Your task to perform on an android device: allow notifications from all sites in the chrome app Image 0: 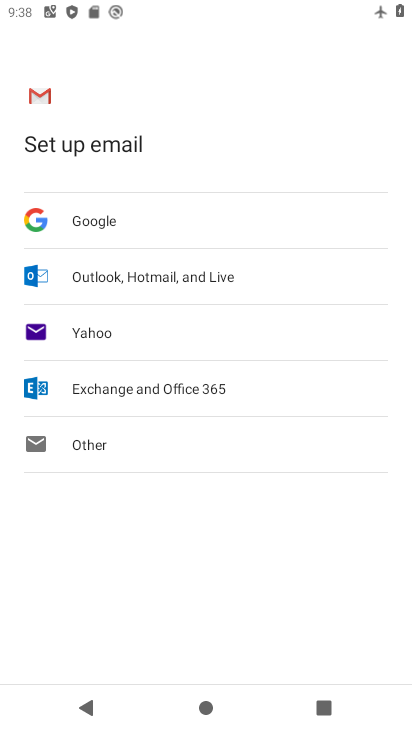
Step 0: press home button
Your task to perform on an android device: allow notifications from all sites in the chrome app Image 1: 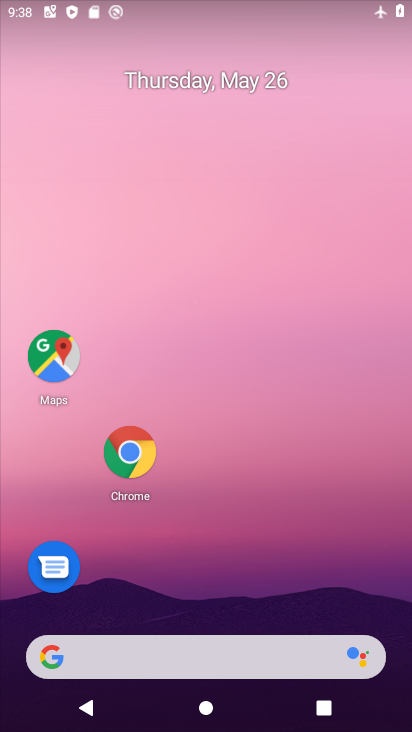
Step 1: click (144, 464)
Your task to perform on an android device: allow notifications from all sites in the chrome app Image 2: 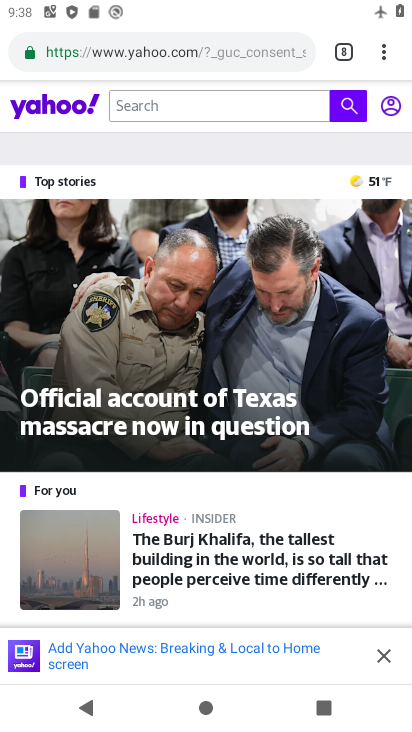
Step 2: drag from (381, 48) to (256, 563)
Your task to perform on an android device: allow notifications from all sites in the chrome app Image 3: 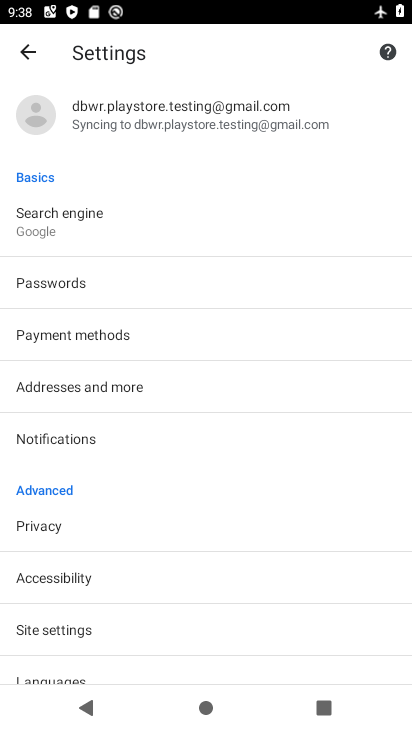
Step 3: click (81, 625)
Your task to perform on an android device: allow notifications from all sites in the chrome app Image 4: 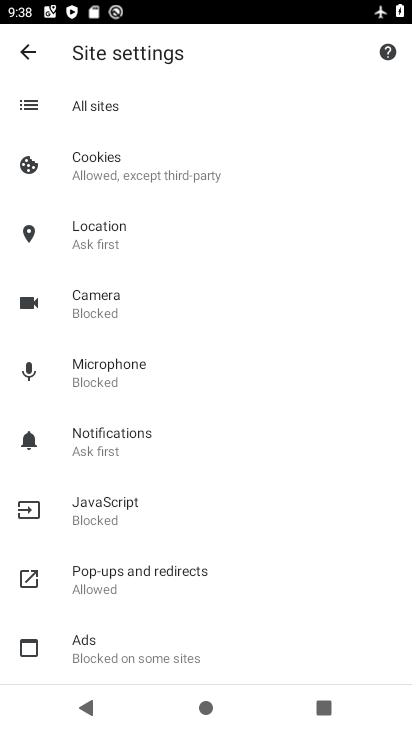
Step 4: click (118, 437)
Your task to perform on an android device: allow notifications from all sites in the chrome app Image 5: 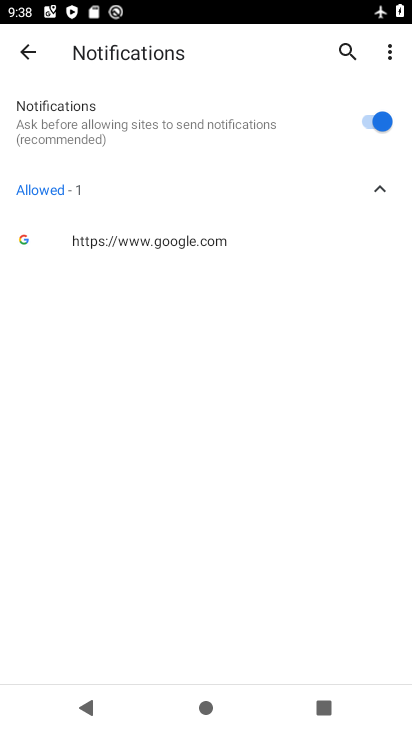
Step 5: task complete